Your task to perform on an android device: Open Yahoo.com Image 0: 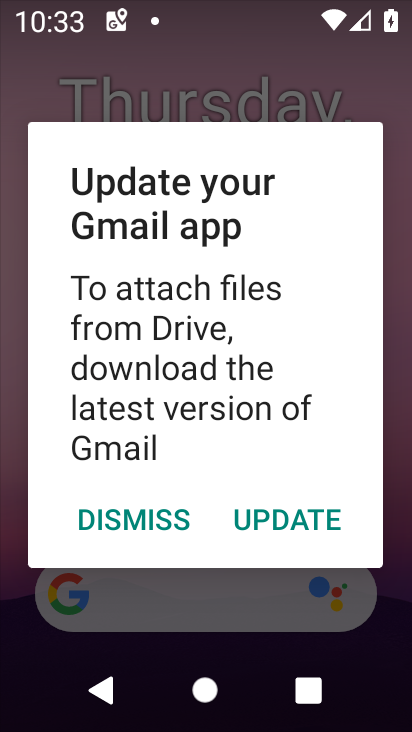
Step 0: press home button
Your task to perform on an android device: Open Yahoo.com Image 1: 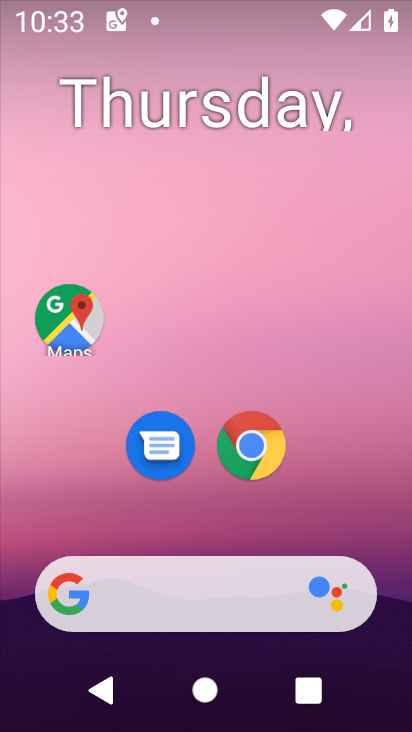
Step 1: drag from (397, 617) to (288, 24)
Your task to perform on an android device: Open Yahoo.com Image 2: 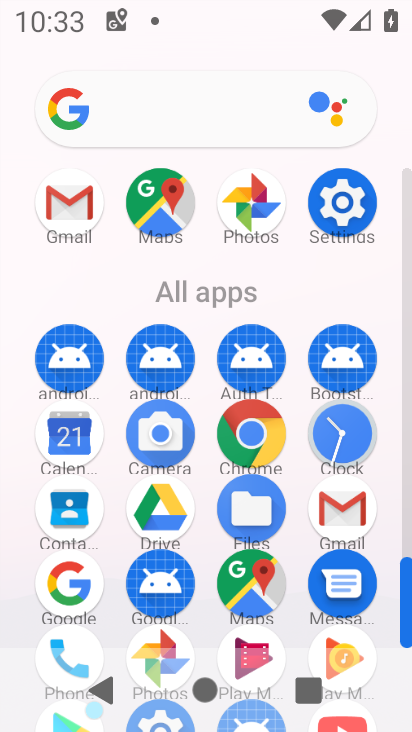
Step 2: click (254, 429)
Your task to perform on an android device: Open Yahoo.com Image 3: 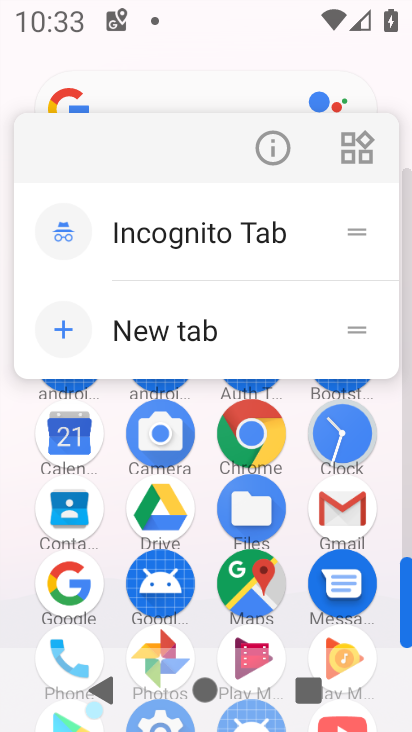
Step 3: click (254, 429)
Your task to perform on an android device: Open Yahoo.com Image 4: 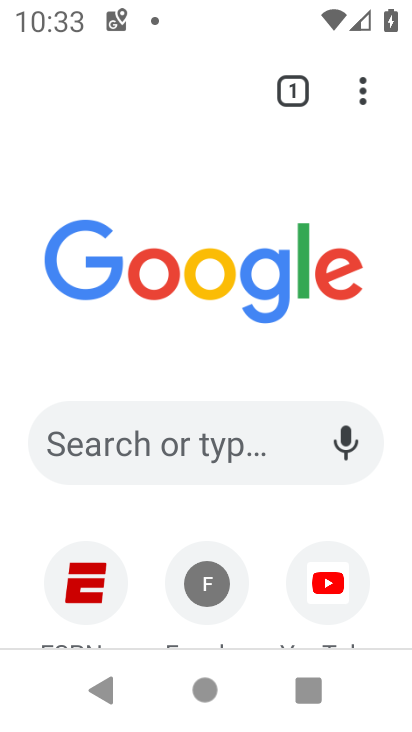
Step 4: drag from (152, 557) to (130, 159)
Your task to perform on an android device: Open Yahoo.com Image 5: 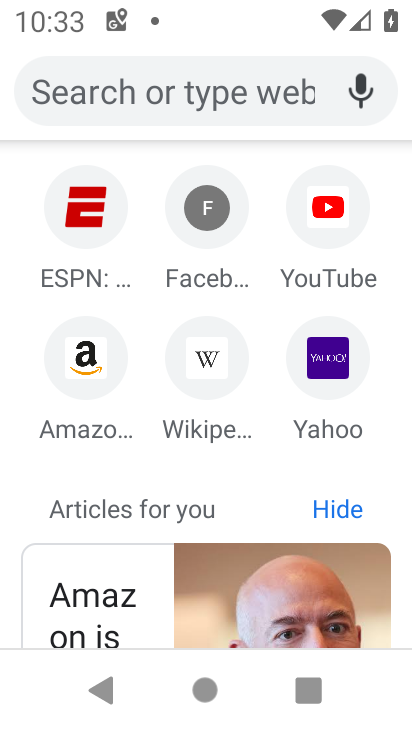
Step 5: click (313, 360)
Your task to perform on an android device: Open Yahoo.com Image 6: 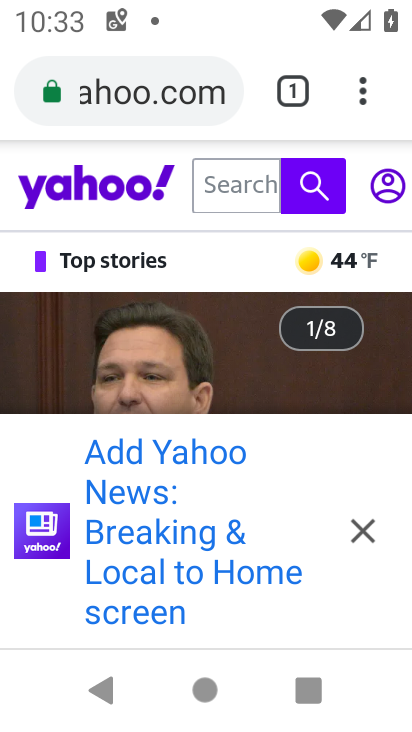
Step 6: task complete